Your task to perform on an android device: Go to Yahoo.com Image 0: 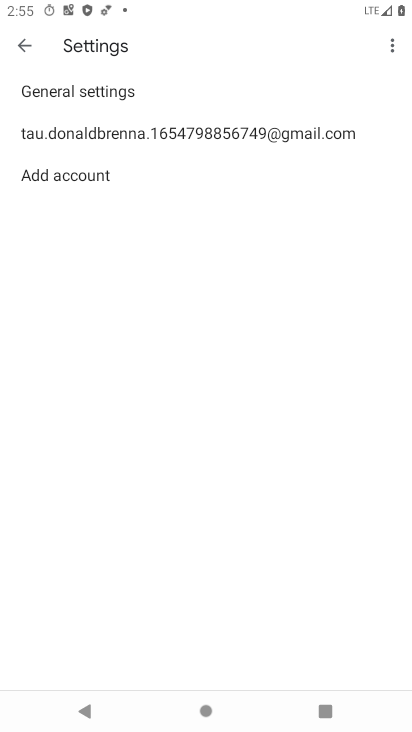
Step 0: press home button
Your task to perform on an android device: Go to Yahoo.com Image 1: 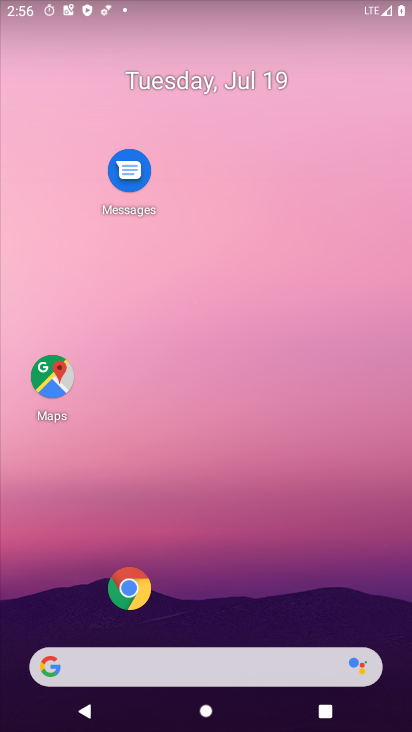
Step 1: click (99, 661)
Your task to perform on an android device: Go to Yahoo.com Image 2: 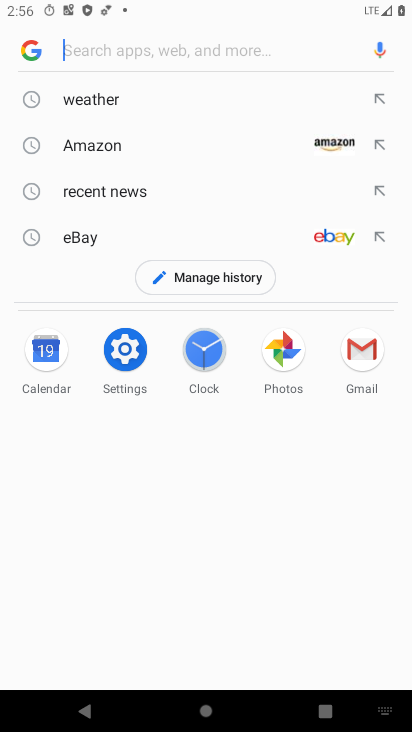
Step 2: type " Yahoo.com"
Your task to perform on an android device: Go to Yahoo.com Image 3: 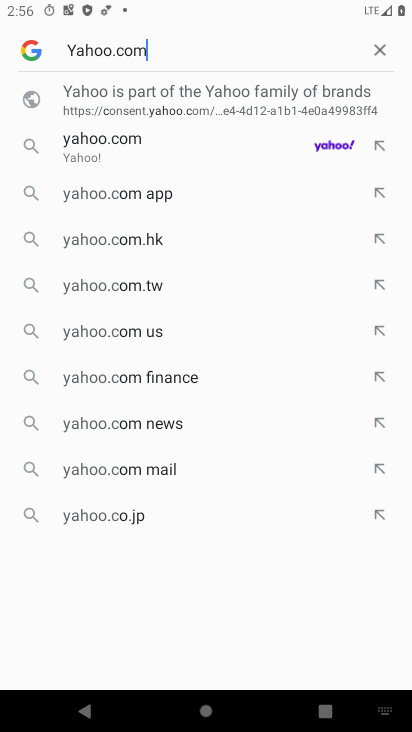
Step 3: type ""
Your task to perform on an android device: Go to Yahoo.com Image 4: 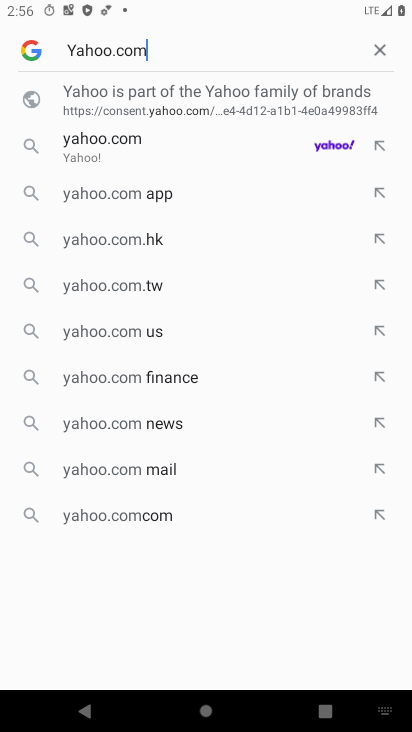
Step 4: click (132, 137)
Your task to perform on an android device: Go to Yahoo.com Image 5: 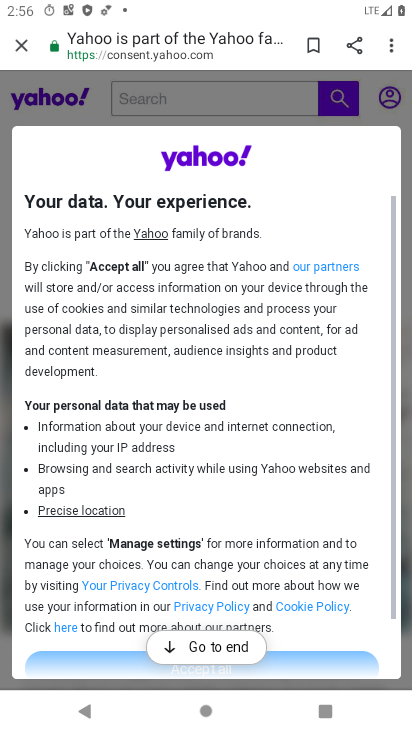
Step 5: task complete